Your task to perform on an android device: turn notification dots on Image 0: 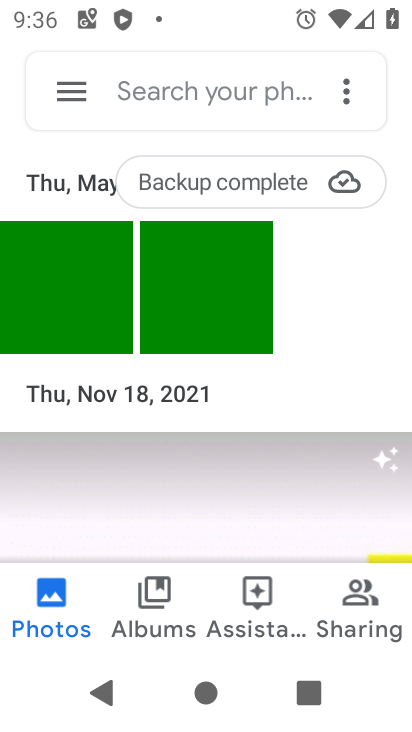
Step 0: press home button
Your task to perform on an android device: turn notification dots on Image 1: 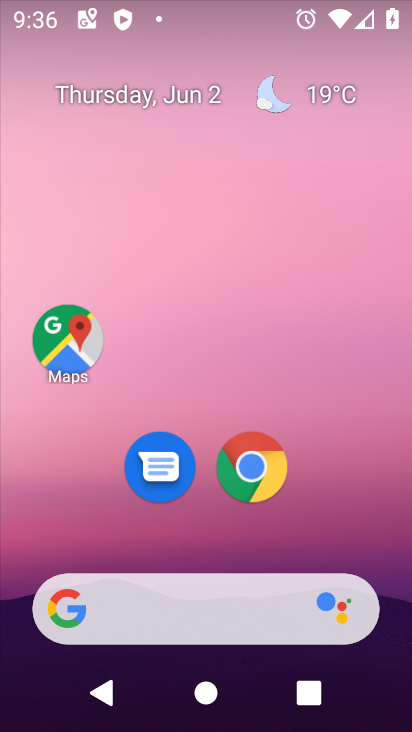
Step 1: drag from (265, 505) to (257, 325)
Your task to perform on an android device: turn notification dots on Image 2: 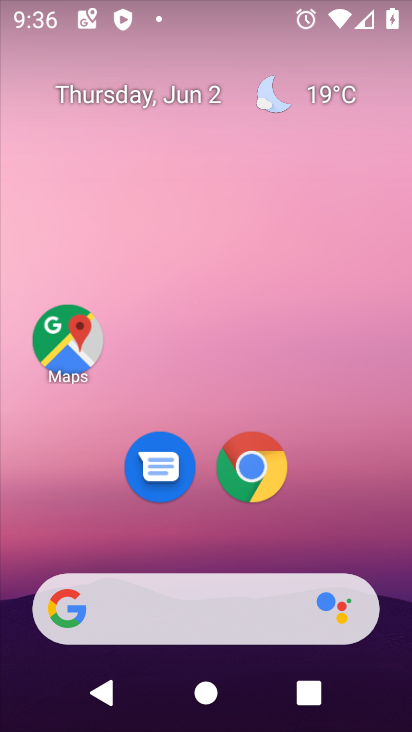
Step 2: drag from (209, 542) to (223, 229)
Your task to perform on an android device: turn notification dots on Image 3: 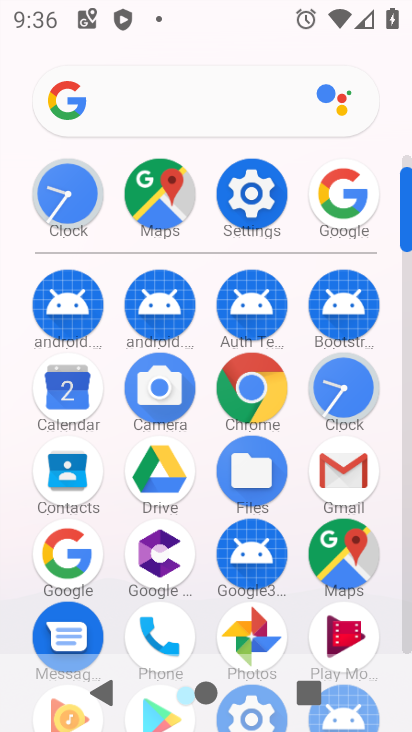
Step 3: click (259, 197)
Your task to perform on an android device: turn notification dots on Image 4: 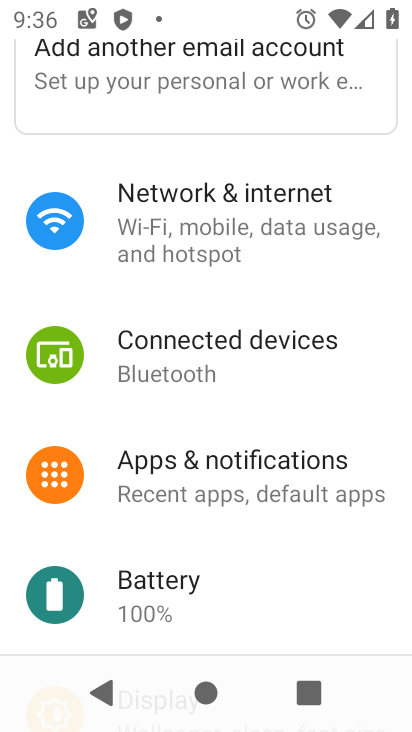
Step 4: click (219, 469)
Your task to perform on an android device: turn notification dots on Image 5: 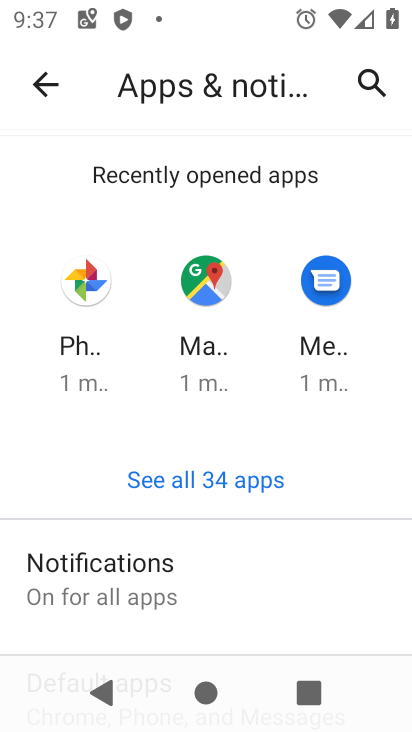
Step 5: click (171, 575)
Your task to perform on an android device: turn notification dots on Image 6: 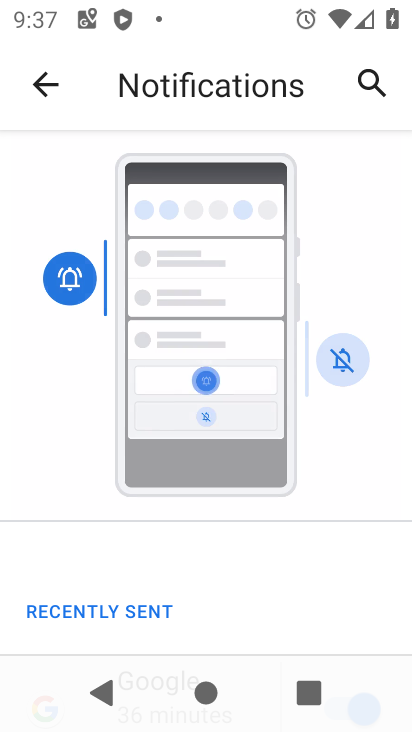
Step 6: drag from (193, 631) to (263, 174)
Your task to perform on an android device: turn notification dots on Image 7: 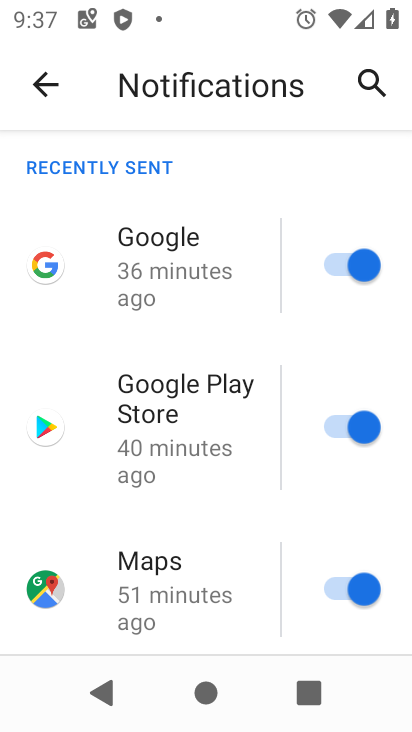
Step 7: drag from (206, 443) to (196, 146)
Your task to perform on an android device: turn notification dots on Image 8: 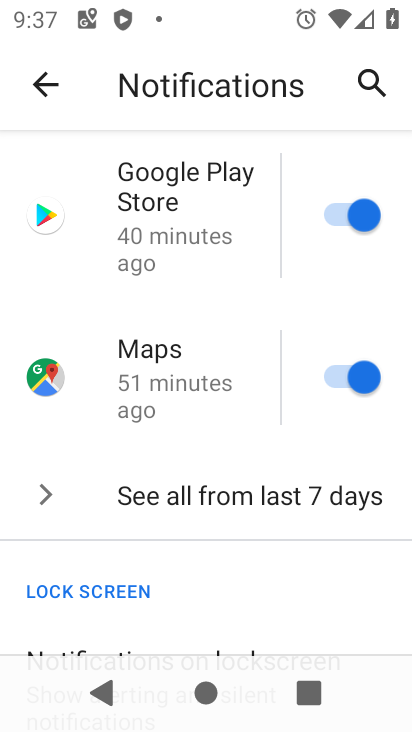
Step 8: drag from (218, 561) to (200, 284)
Your task to perform on an android device: turn notification dots on Image 9: 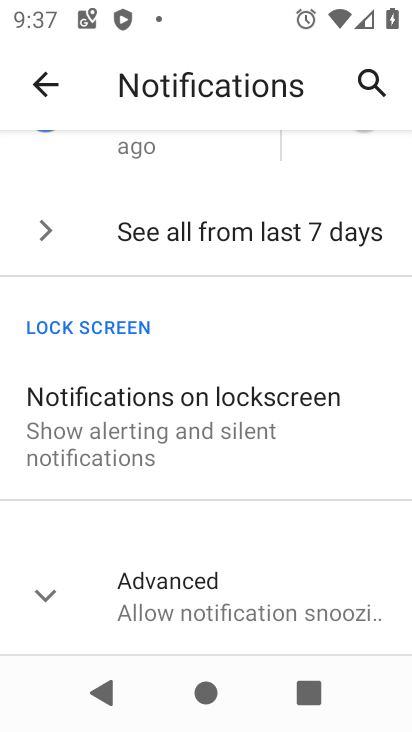
Step 9: click (189, 601)
Your task to perform on an android device: turn notification dots on Image 10: 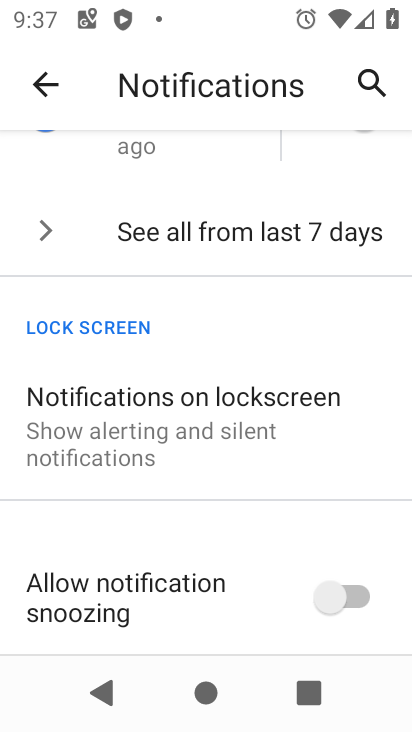
Step 10: task complete